Your task to perform on an android device: Open Youtube and go to "Your channel" Image 0: 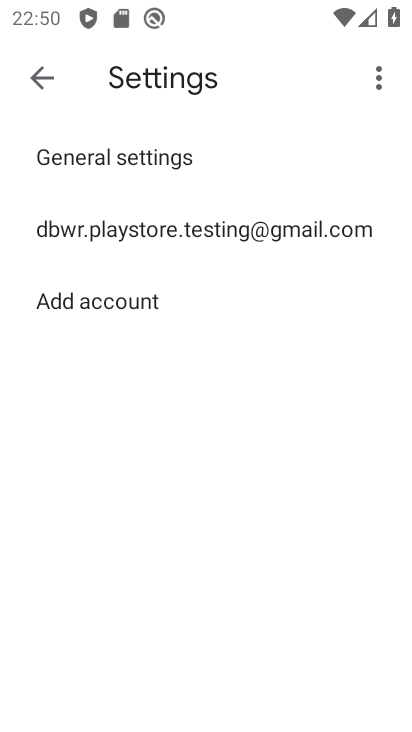
Step 0: press home button
Your task to perform on an android device: Open Youtube and go to "Your channel" Image 1: 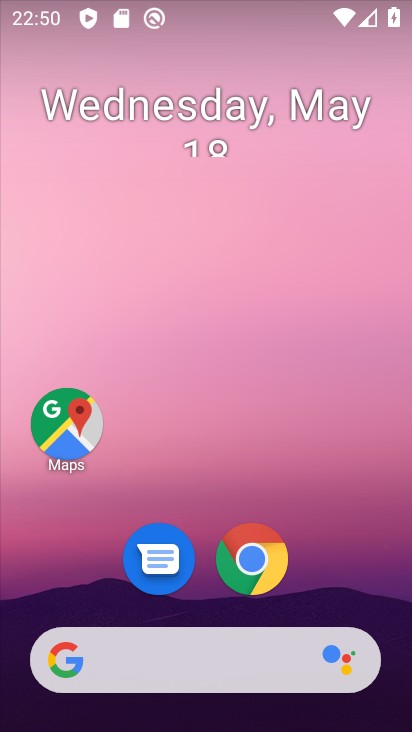
Step 1: drag from (296, 530) to (262, 152)
Your task to perform on an android device: Open Youtube and go to "Your channel" Image 2: 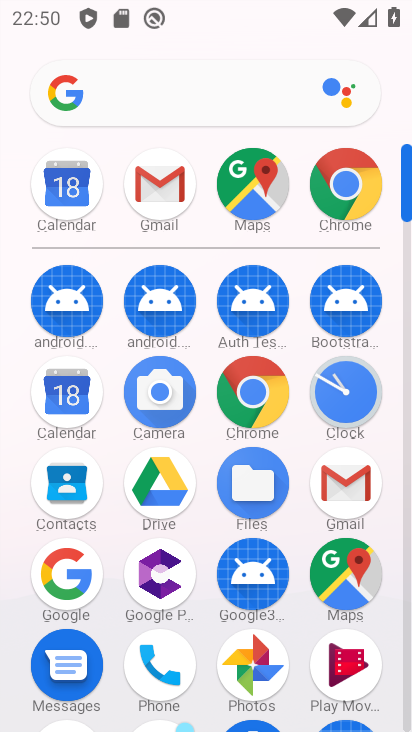
Step 2: drag from (295, 595) to (272, 101)
Your task to perform on an android device: Open Youtube and go to "Your channel" Image 3: 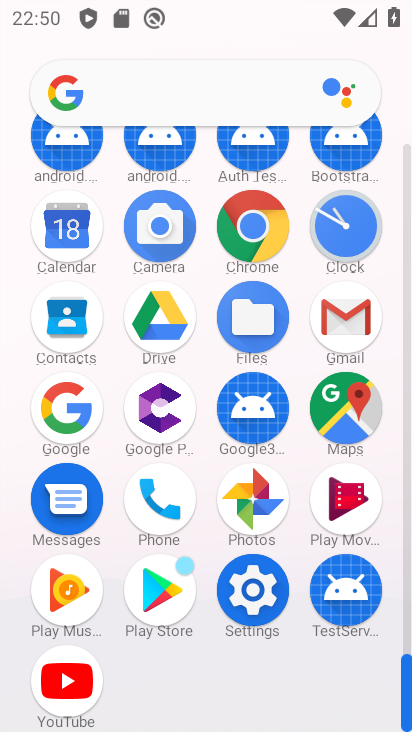
Step 3: click (69, 688)
Your task to perform on an android device: Open Youtube and go to "Your channel" Image 4: 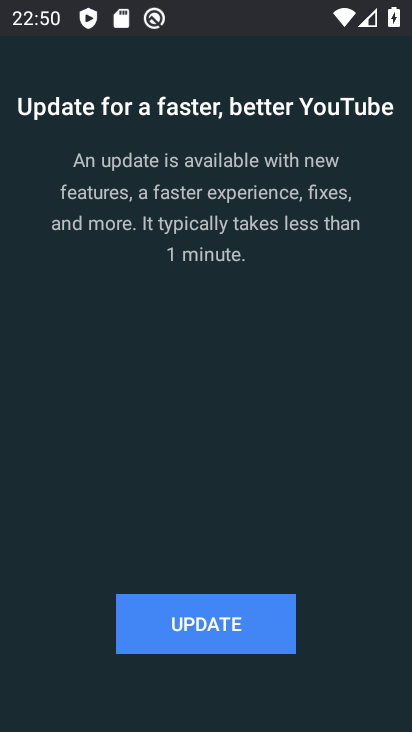
Step 4: click (180, 620)
Your task to perform on an android device: Open Youtube and go to "Your channel" Image 5: 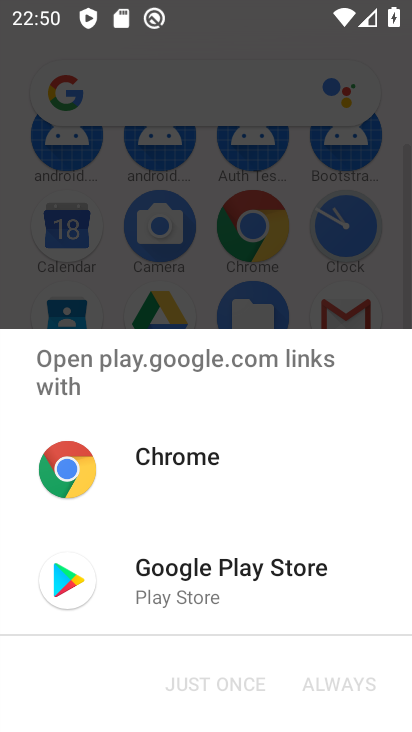
Step 5: drag from (190, 603) to (227, 603)
Your task to perform on an android device: Open Youtube and go to "Your channel" Image 6: 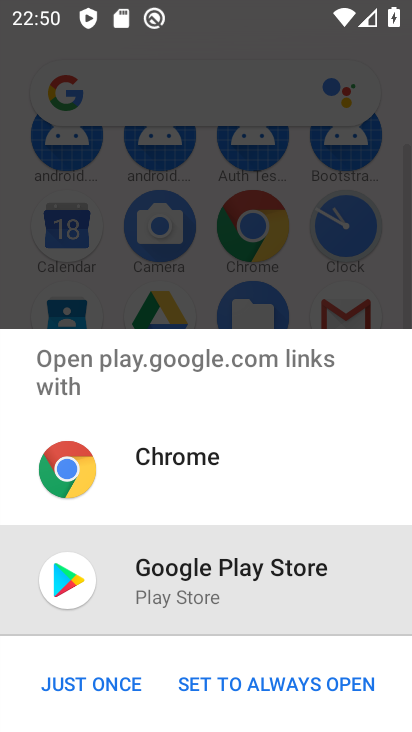
Step 6: click (225, 678)
Your task to perform on an android device: Open Youtube and go to "Your channel" Image 7: 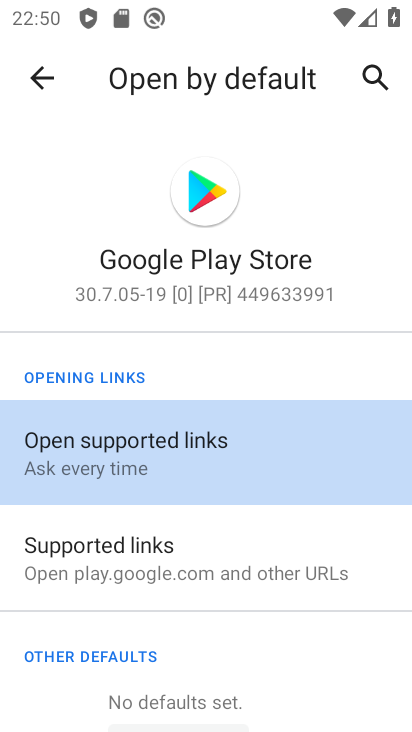
Step 7: click (161, 468)
Your task to perform on an android device: Open Youtube and go to "Your channel" Image 8: 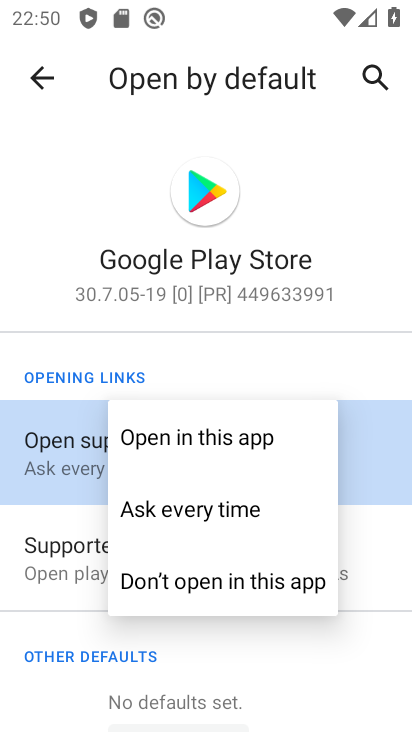
Step 8: click (191, 431)
Your task to perform on an android device: Open Youtube and go to "Your channel" Image 9: 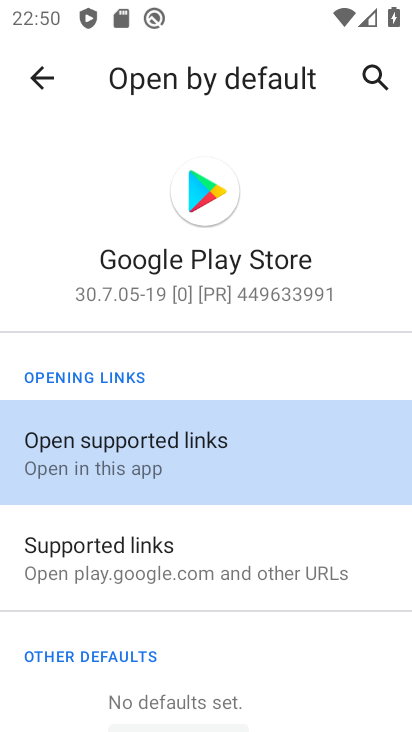
Step 9: click (44, 88)
Your task to perform on an android device: Open Youtube and go to "Your channel" Image 10: 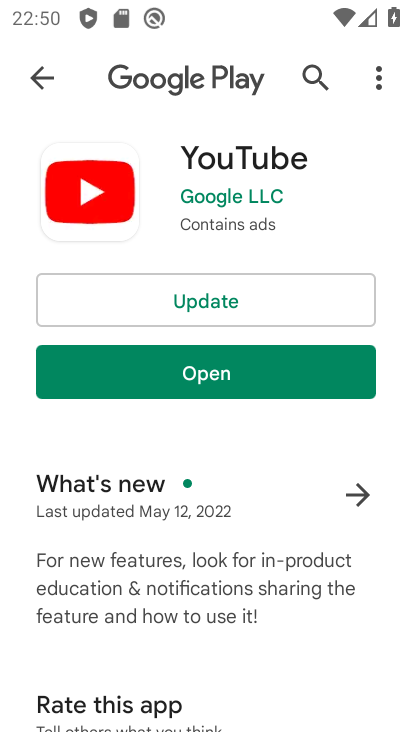
Step 10: click (198, 295)
Your task to perform on an android device: Open Youtube and go to "Your channel" Image 11: 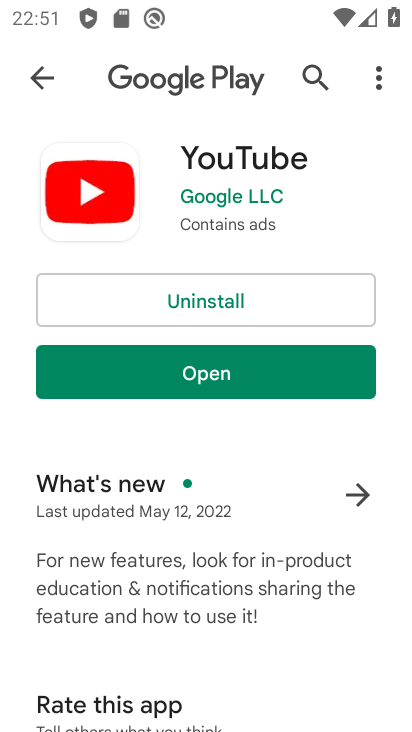
Step 11: click (184, 361)
Your task to perform on an android device: Open Youtube and go to "Your channel" Image 12: 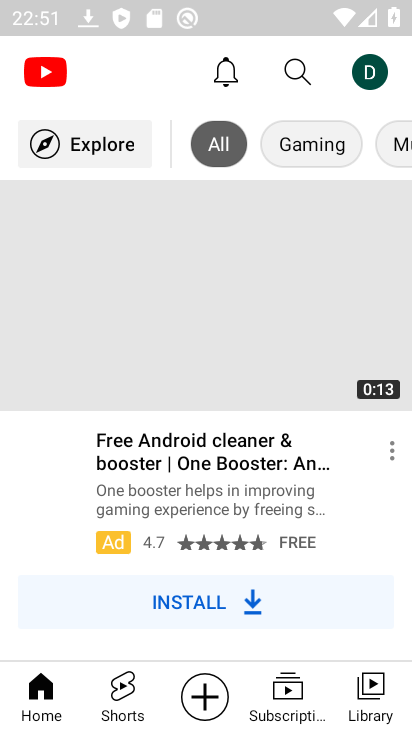
Step 12: click (367, 82)
Your task to perform on an android device: Open Youtube and go to "Your channel" Image 13: 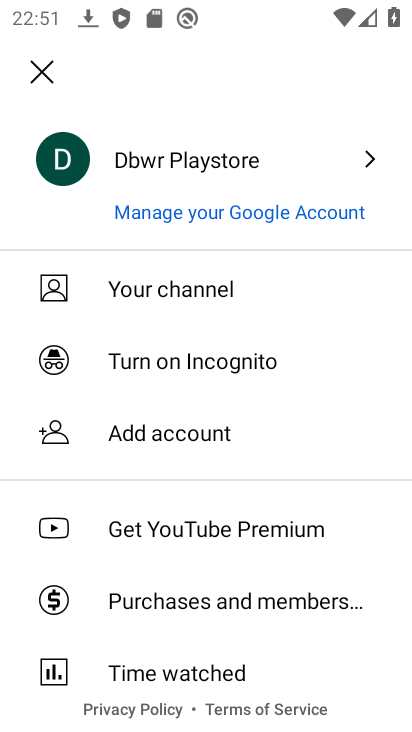
Step 13: click (234, 288)
Your task to perform on an android device: Open Youtube and go to "Your channel" Image 14: 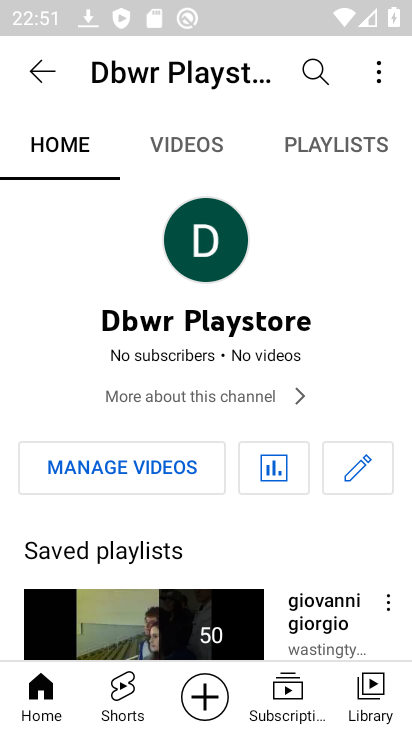
Step 14: task complete